Your task to perform on an android device: Go to privacy settings Image 0: 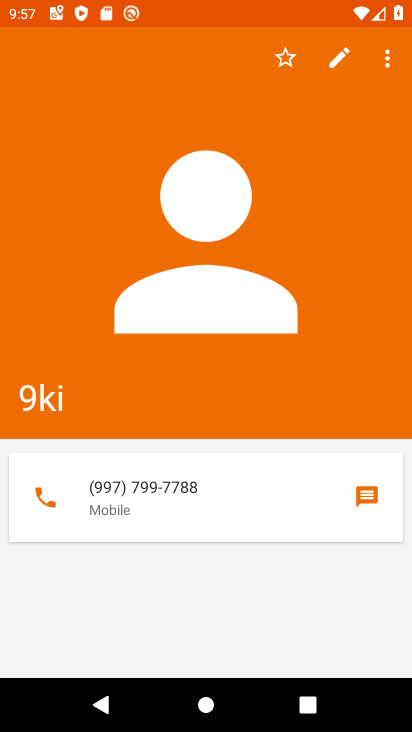
Step 0: press home button
Your task to perform on an android device: Go to privacy settings Image 1: 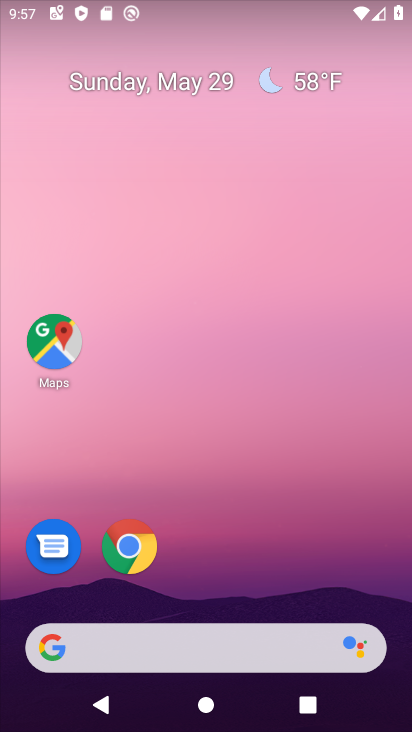
Step 1: drag from (387, 548) to (353, 107)
Your task to perform on an android device: Go to privacy settings Image 2: 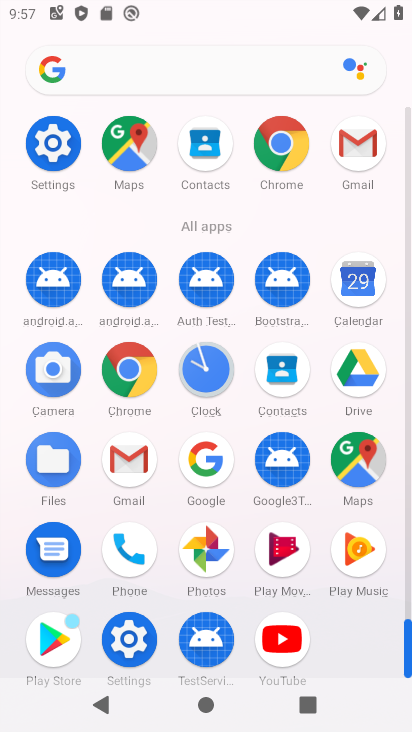
Step 2: click (63, 127)
Your task to perform on an android device: Go to privacy settings Image 3: 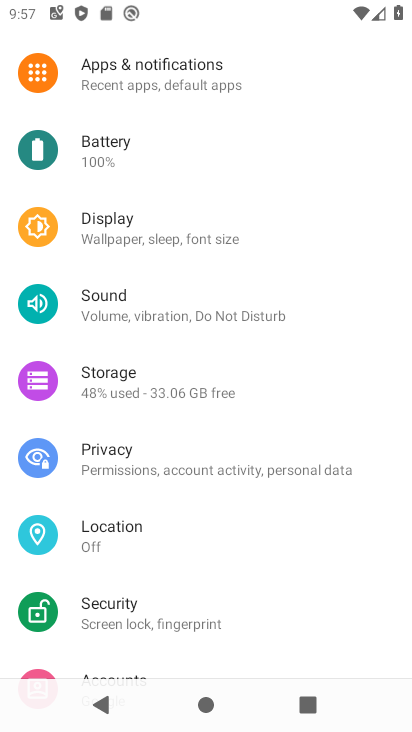
Step 3: click (131, 462)
Your task to perform on an android device: Go to privacy settings Image 4: 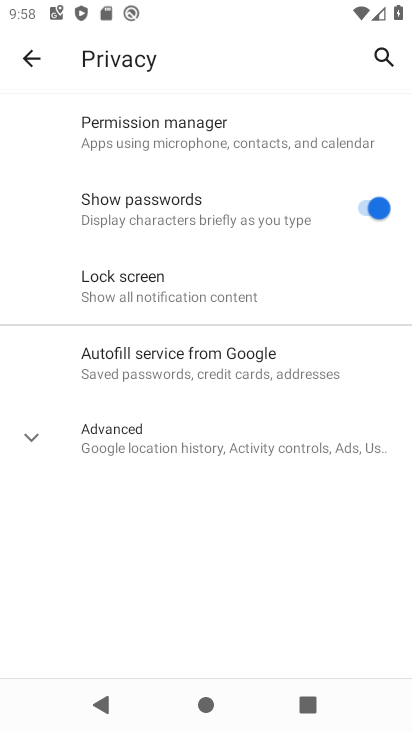
Step 4: task complete